Your task to perform on an android device: Open calendar and show me the third week of next month Image 0: 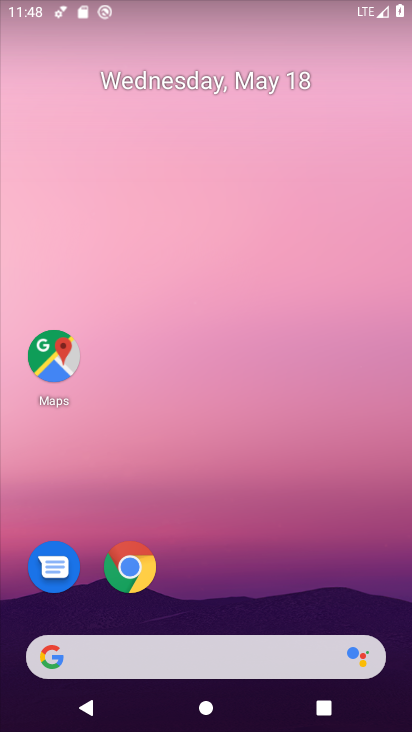
Step 0: drag from (331, 433) to (338, 27)
Your task to perform on an android device: Open calendar and show me the third week of next month Image 1: 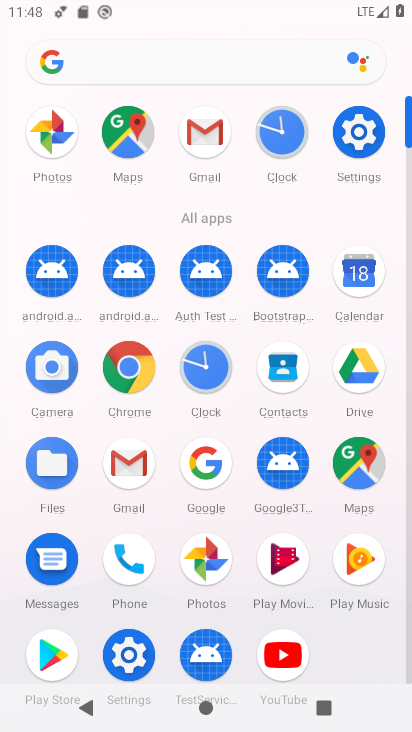
Step 1: click (371, 273)
Your task to perform on an android device: Open calendar and show me the third week of next month Image 2: 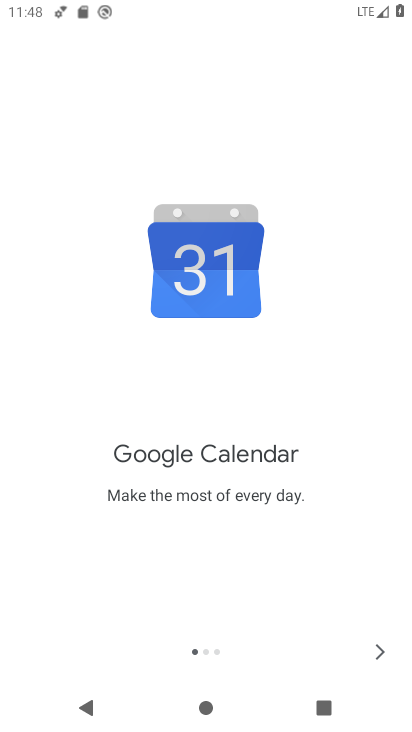
Step 2: click (376, 658)
Your task to perform on an android device: Open calendar and show me the third week of next month Image 3: 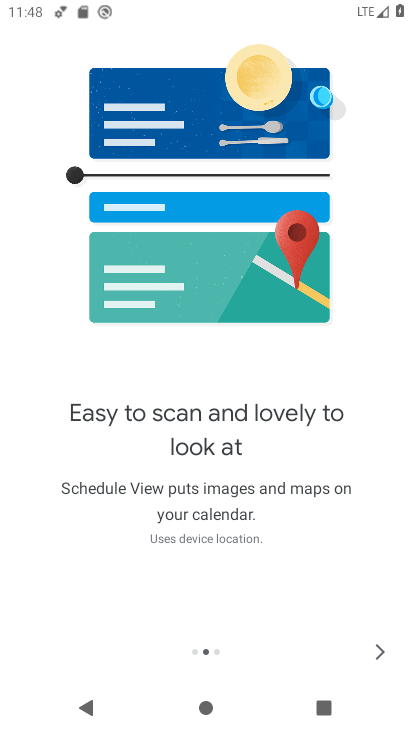
Step 3: click (376, 658)
Your task to perform on an android device: Open calendar and show me the third week of next month Image 4: 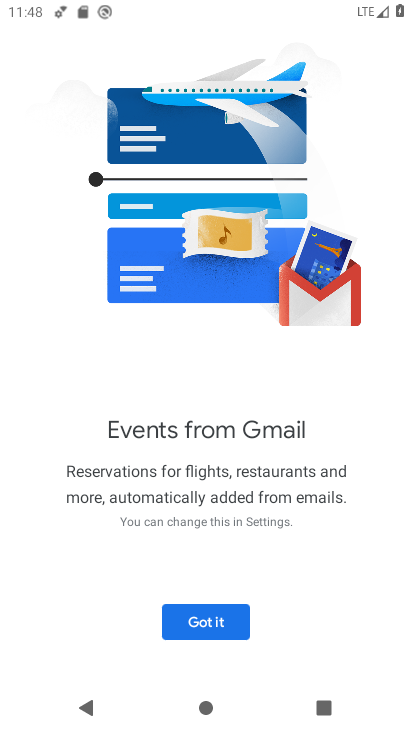
Step 4: click (190, 622)
Your task to perform on an android device: Open calendar and show me the third week of next month Image 5: 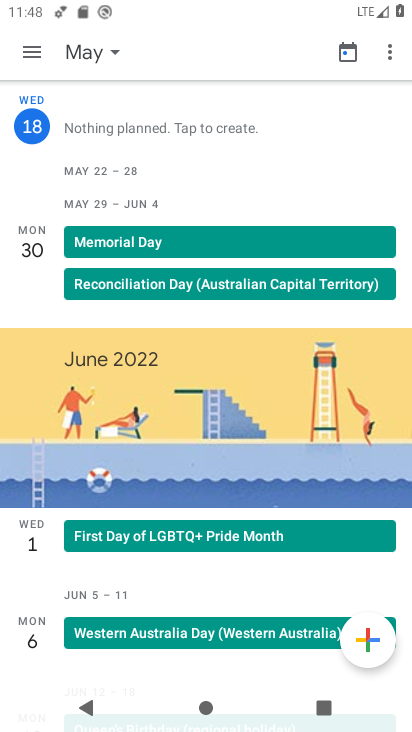
Step 5: click (103, 56)
Your task to perform on an android device: Open calendar and show me the third week of next month Image 6: 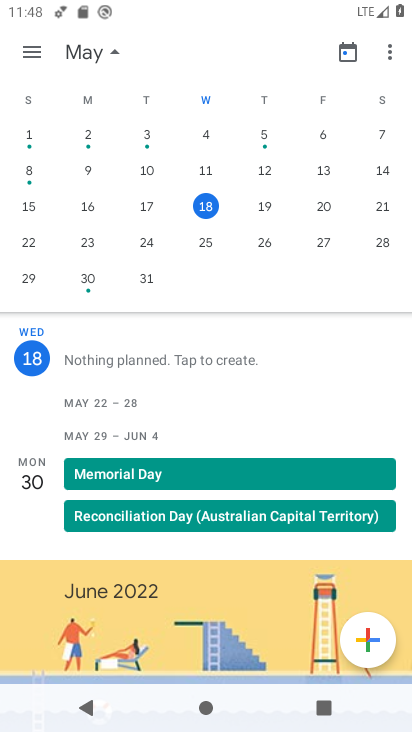
Step 6: drag from (364, 273) to (12, 207)
Your task to perform on an android device: Open calendar and show me the third week of next month Image 7: 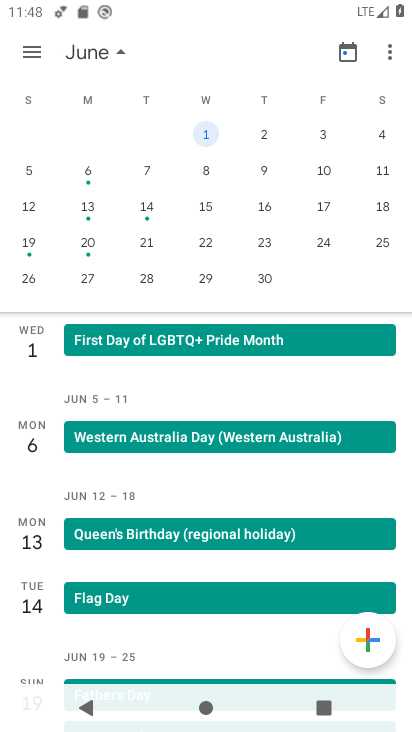
Step 7: click (139, 235)
Your task to perform on an android device: Open calendar and show me the third week of next month Image 8: 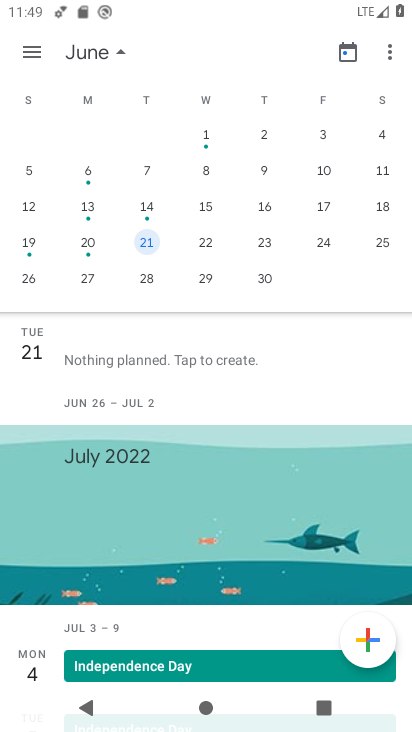
Step 8: task complete